Your task to perform on an android device: open app "DoorDash - Food Delivery" (install if not already installed) and go to login screen Image 0: 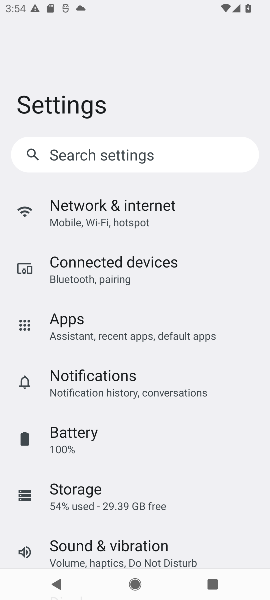
Step 0: press home button
Your task to perform on an android device: open app "DoorDash - Food Delivery" (install if not already installed) and go to login screen Image 1: 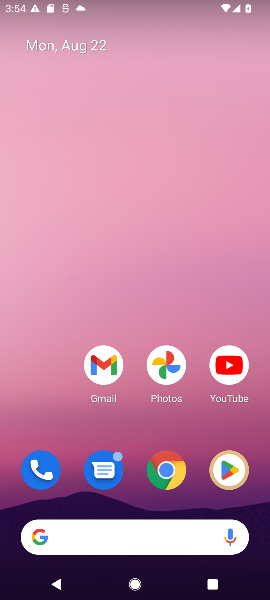
Step 1: drag from (88, 540) to (111, 161)
Your task to perform on an android device: open app "DoorDash - Food Delivery" (install if not already installed) and go to login screen Image 2: 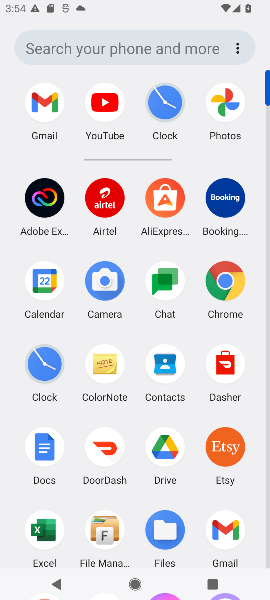
Step 2: drag from (135, 499) to (133, 146)
Your task to perform on an android device: open app "DoorDash - Food Delivery" (install if not already installed) and go to login screen Image 3: 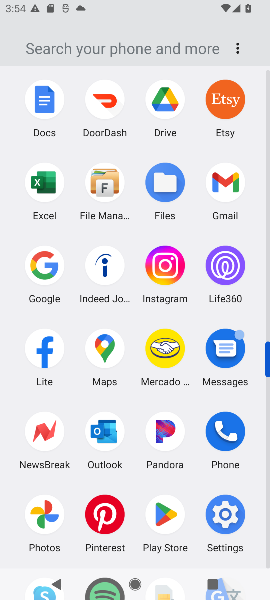
Step 3: click (166, 512)
Your task to perform on an android device: open app "DoorDash - Food Delivery" (install if not already installed) and go to login screen Image 4: 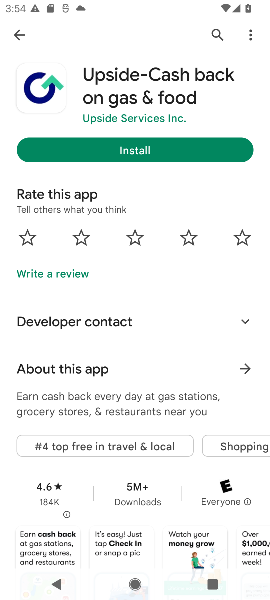
Step 4: click (11, 33)
Your task to perform on an android device: open app "DoorDash - Food Delivery" (install if not already installed) and go to login screen Image 5: 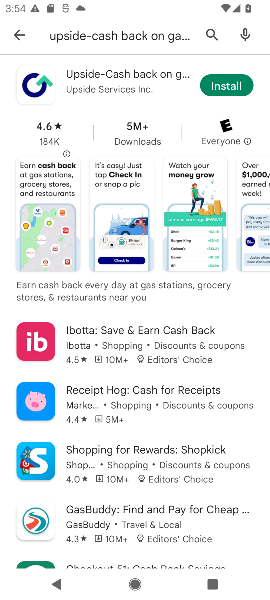
Step 5: click (11, 34)
Your task to perform on an android device: open app "DoorDash - Food Delivery" (install if not already installed) and go to login screen Image 6: 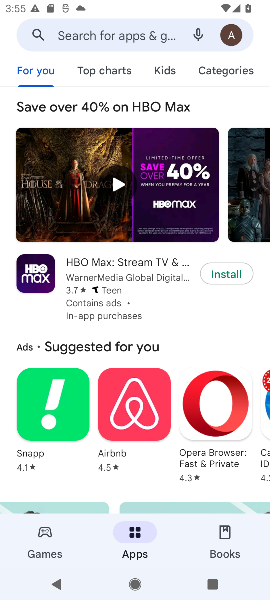
Step 6: click (128, 29)
Your task to perform on an android device: open app "DoorDash - Food Delivery" (install if not already installed) and go to login screen Image 7: 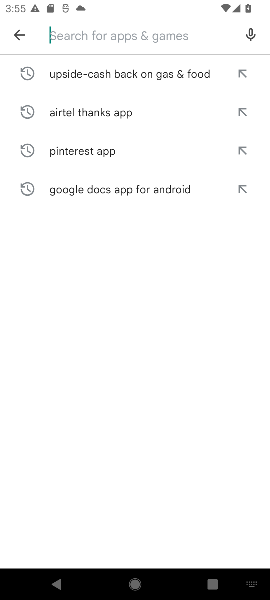
Step 7: click (84, 39)
Your task to perform on an android device: open app "DoorDash - Food Delivery" (install if not already installed) and go to login screen Image 8: 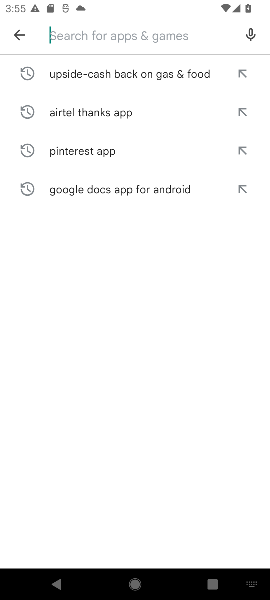
Step 8: type "DoorDash - Food Delivery "
Your task to perform on an android device: open app "DoorDash - Food Delivery" (install if not already installed) and go to login screen Image 9: 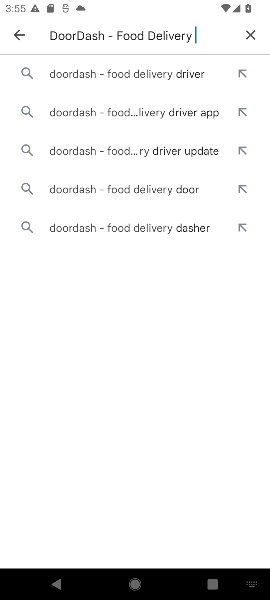
Step 9: click (78, 70)
Your task to perform on an android device: open app "DoorDash - Food Delivery" (install if not already installed) and go to login screen Image 10: 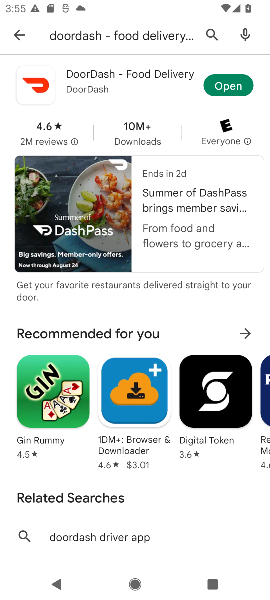
Step 10: click (229, 90)
Your task to perform on an android device: open app "DoorDash - Food Delivery" (install if not already installed) and go to login screen Image 11: 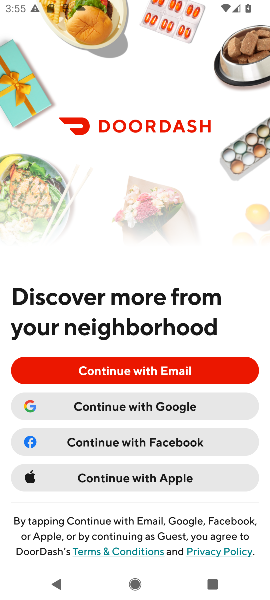
Step 11: task complete